Your task to perform on an android device: open app "Messages" Image 0: 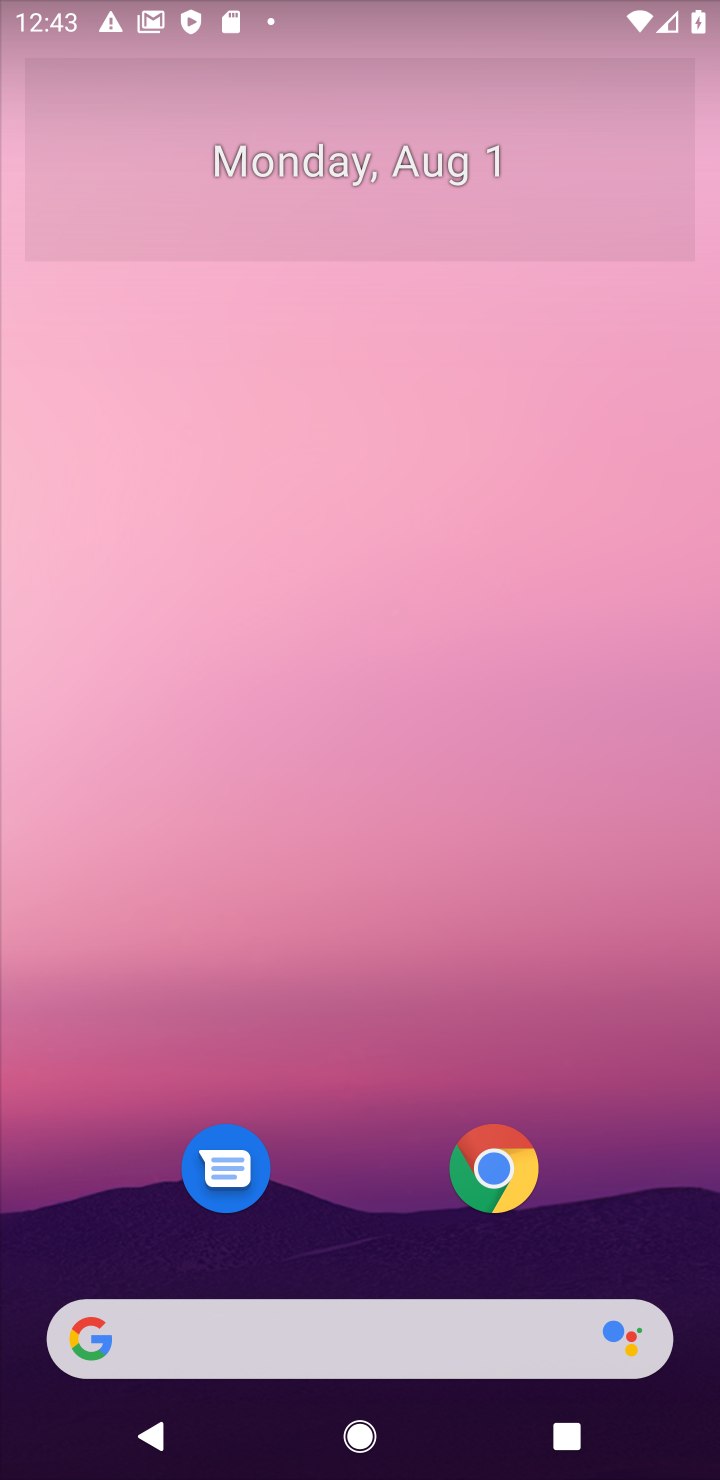
Step 0: drag from (391, 1186) to (490, 52)
Your task to perform on an android device: open app "Messages" Image 1: 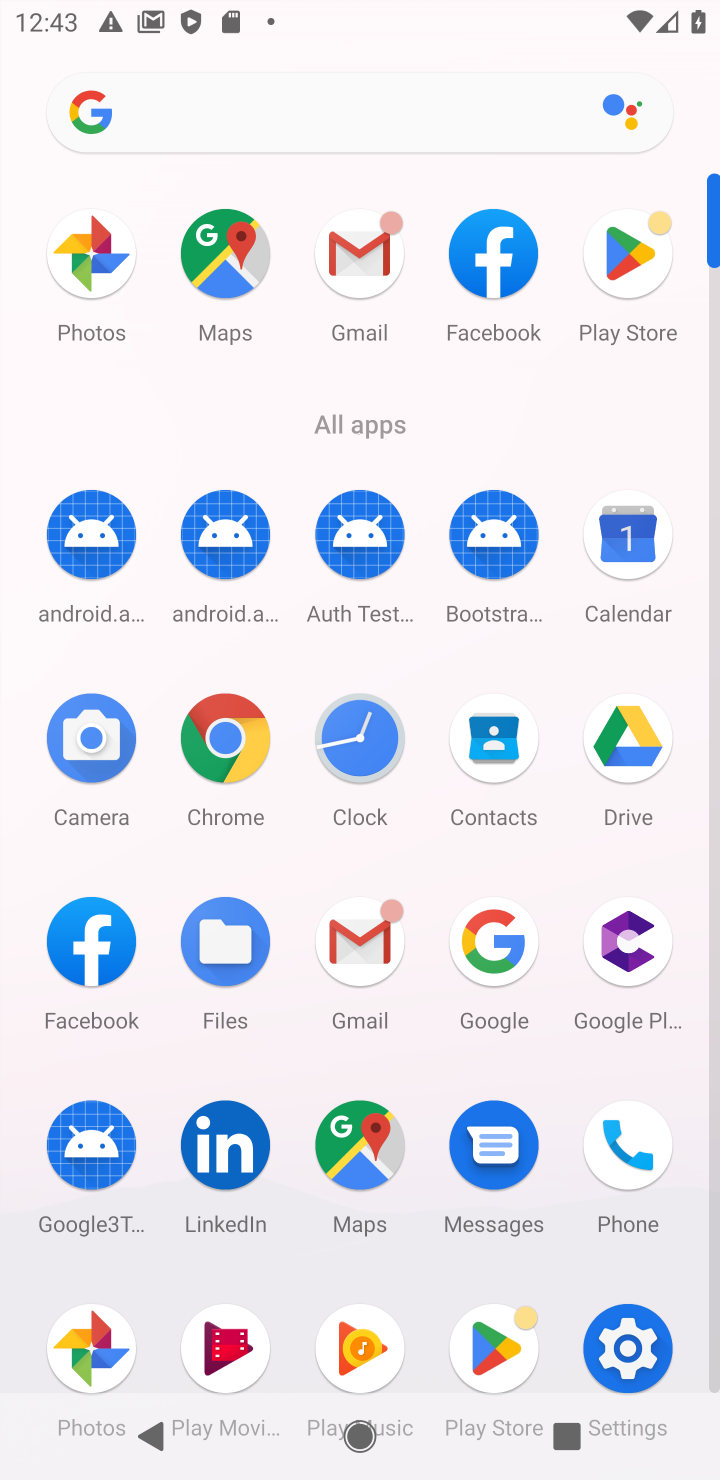
Step 1: click (621, 258)
Your task to perform on an android device: open app "Messages" Image 2: 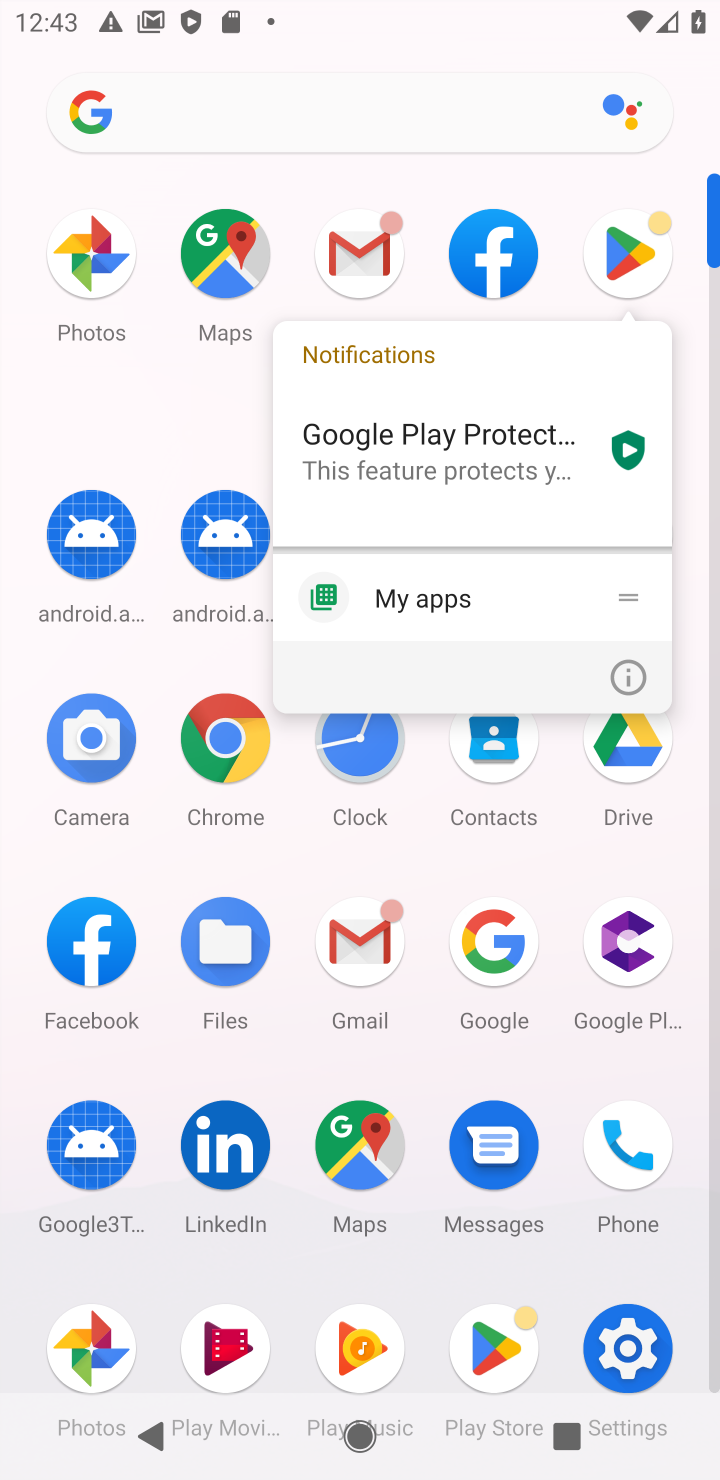
Step 2: click (619, 267)
Your task to perform on an android device: open app "Messages" Image 3: 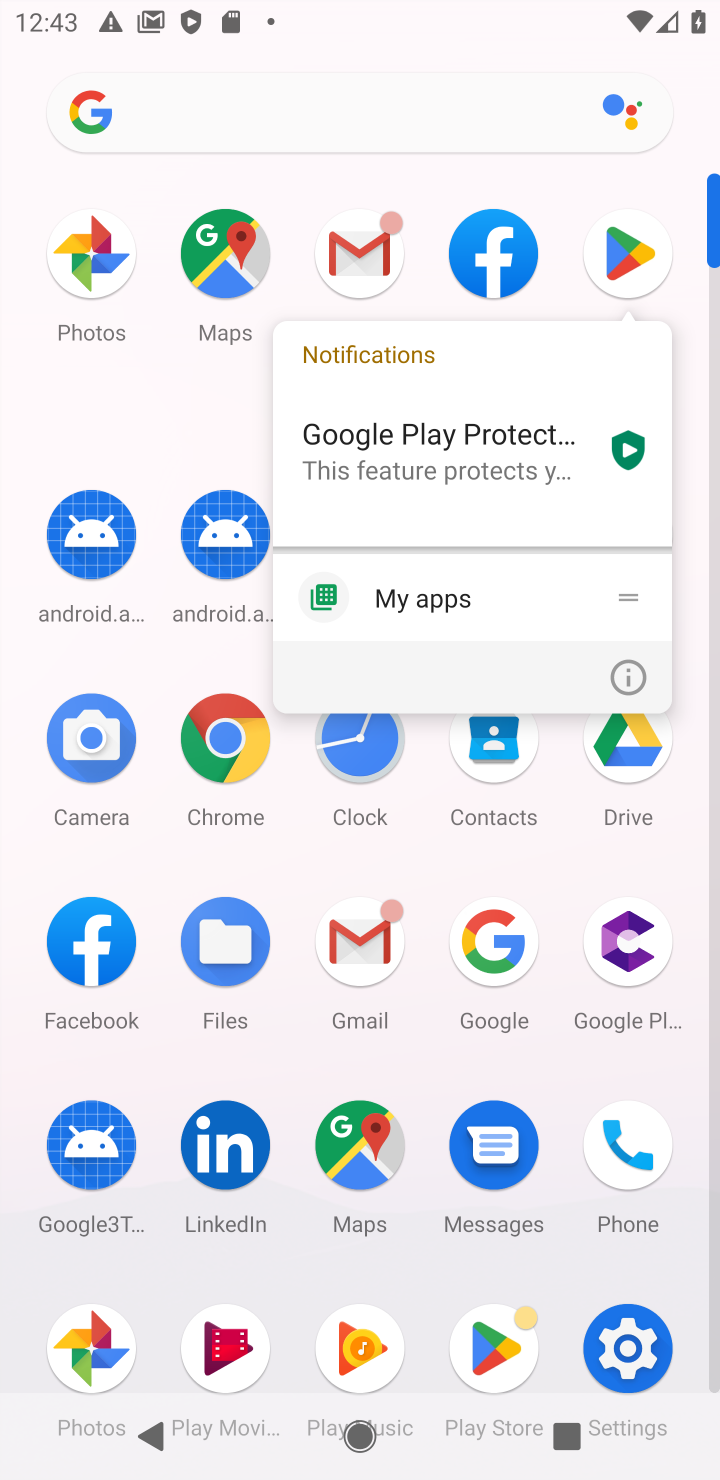
Step 3: click (612, 261)
Your task to perform on an android device: open app "Messages" Image 4: 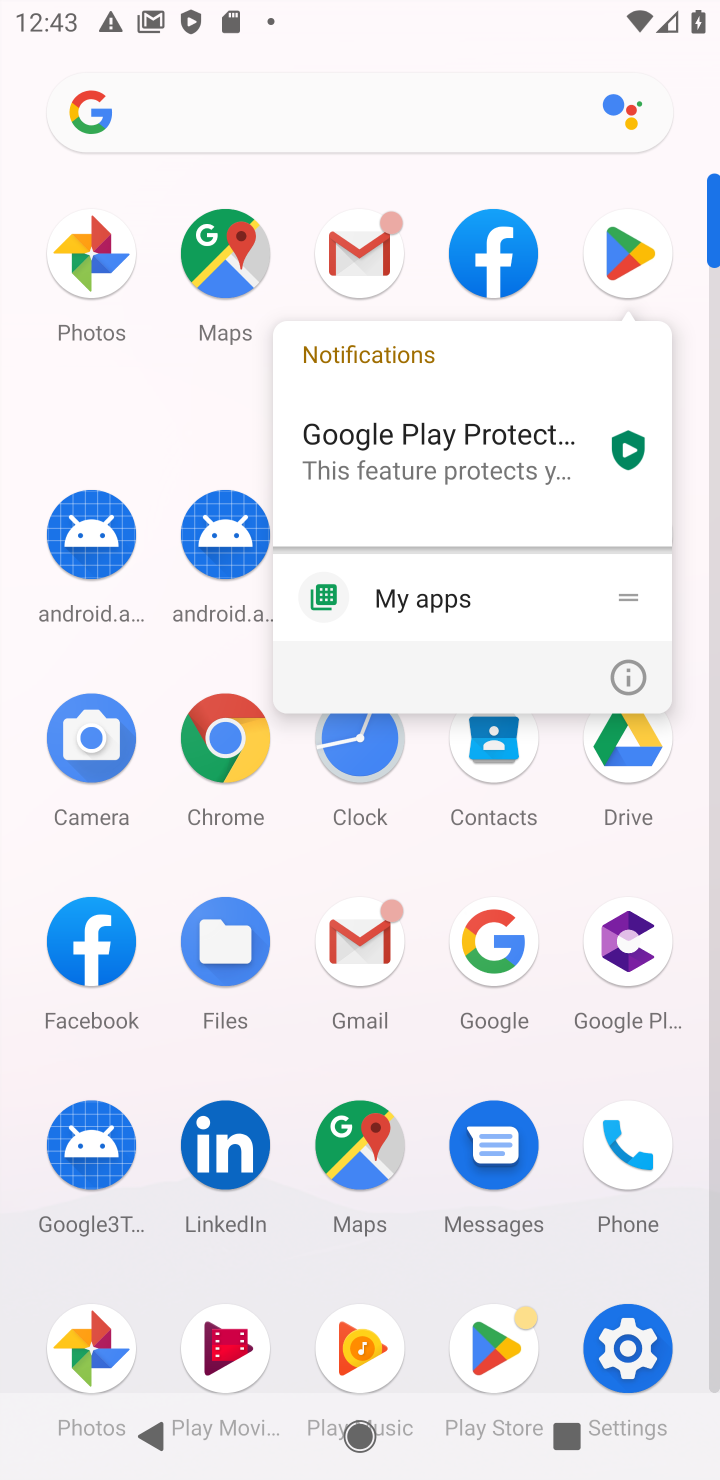
Step 4: click (639, 244)
Your task to perform on an android device: open app "Messages" Image 5: 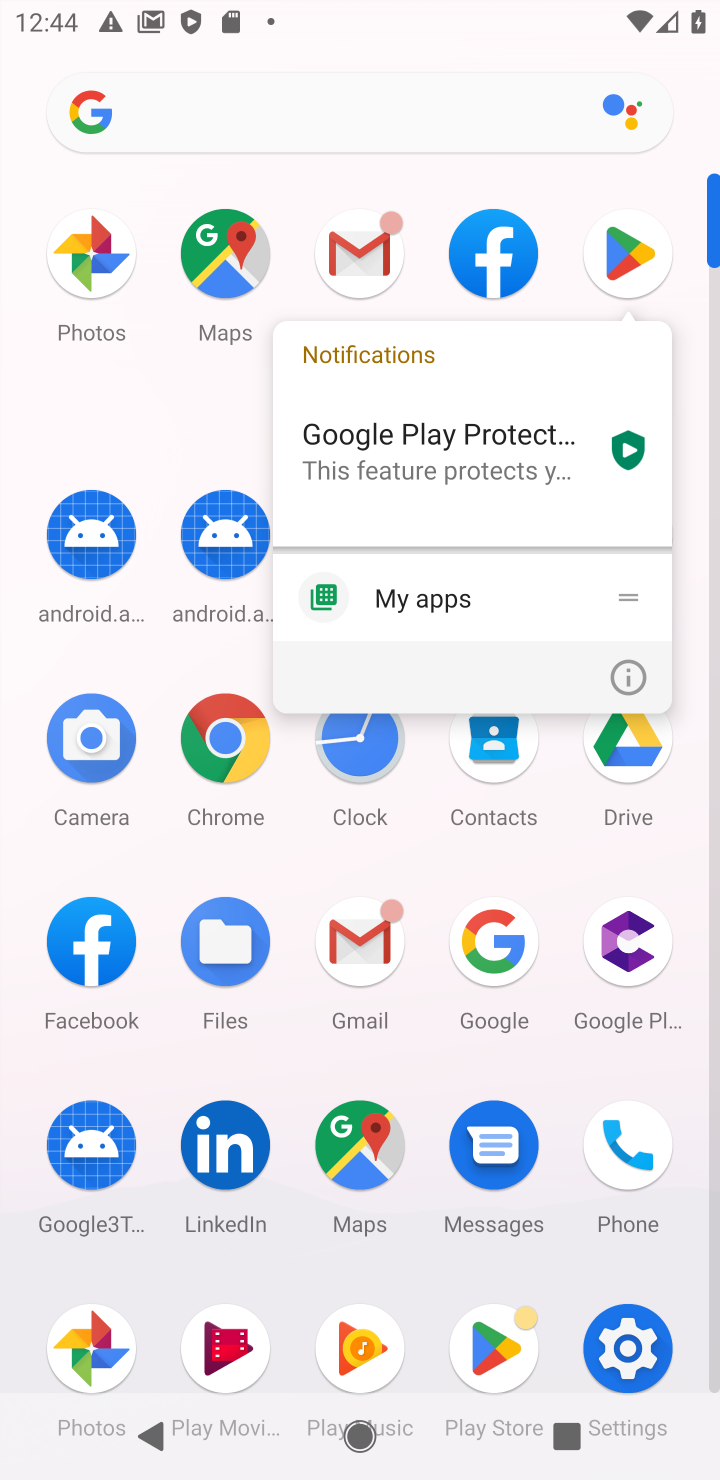
Step 5: click (646, 248)
Your task to perform on an android device: open app "Messages" Image 6: 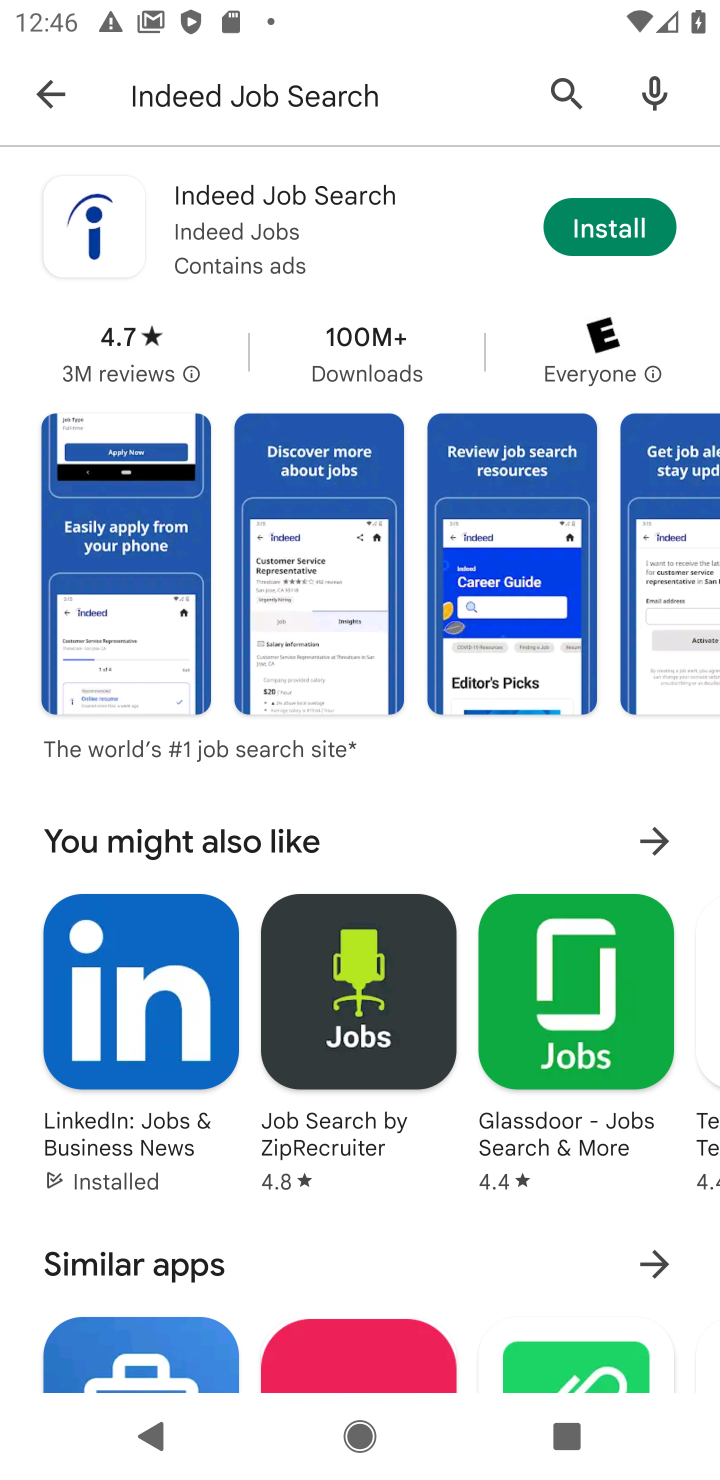
Step 6: click (471, 90)
Your task to perform on an android device: open app "Messages" Image 7: 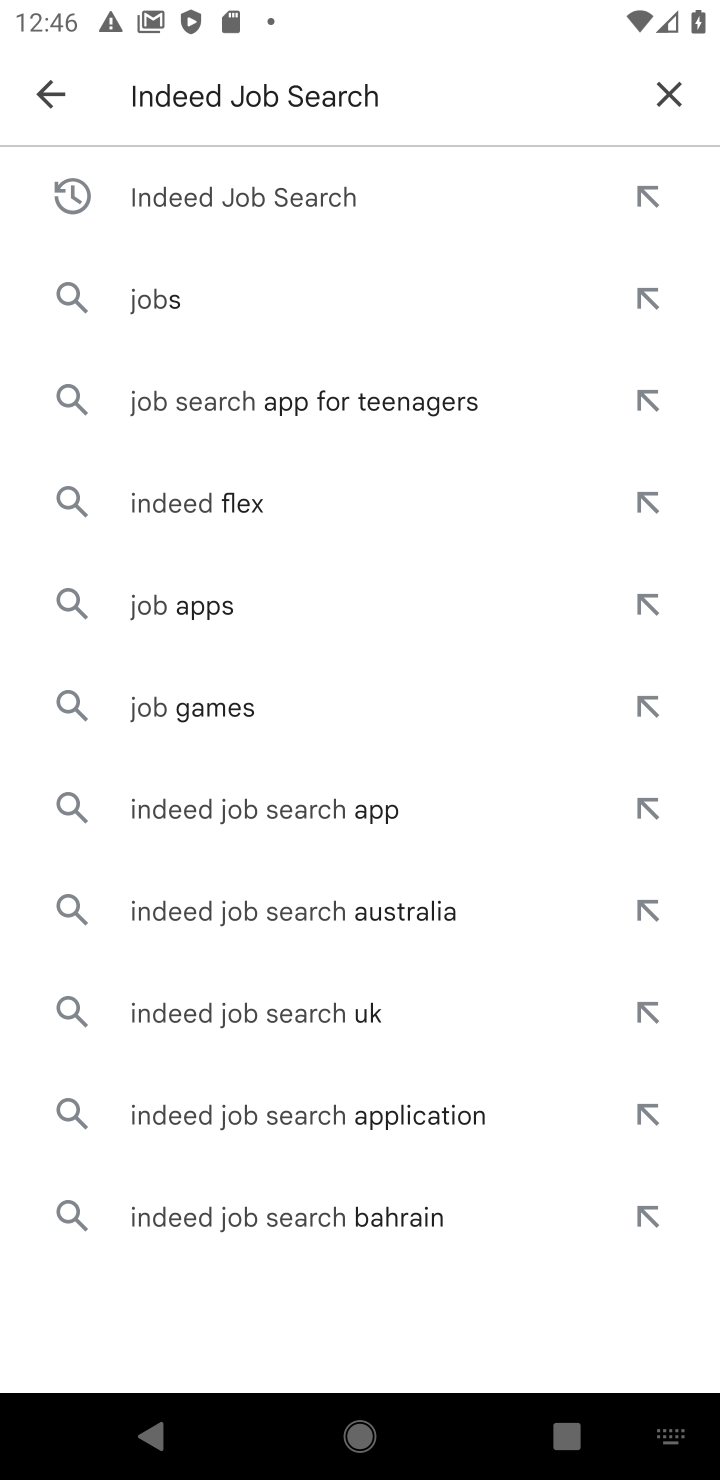
Step 7: click (677, 89)
Your task to perform on an android device: open app "Messages" Image 8: 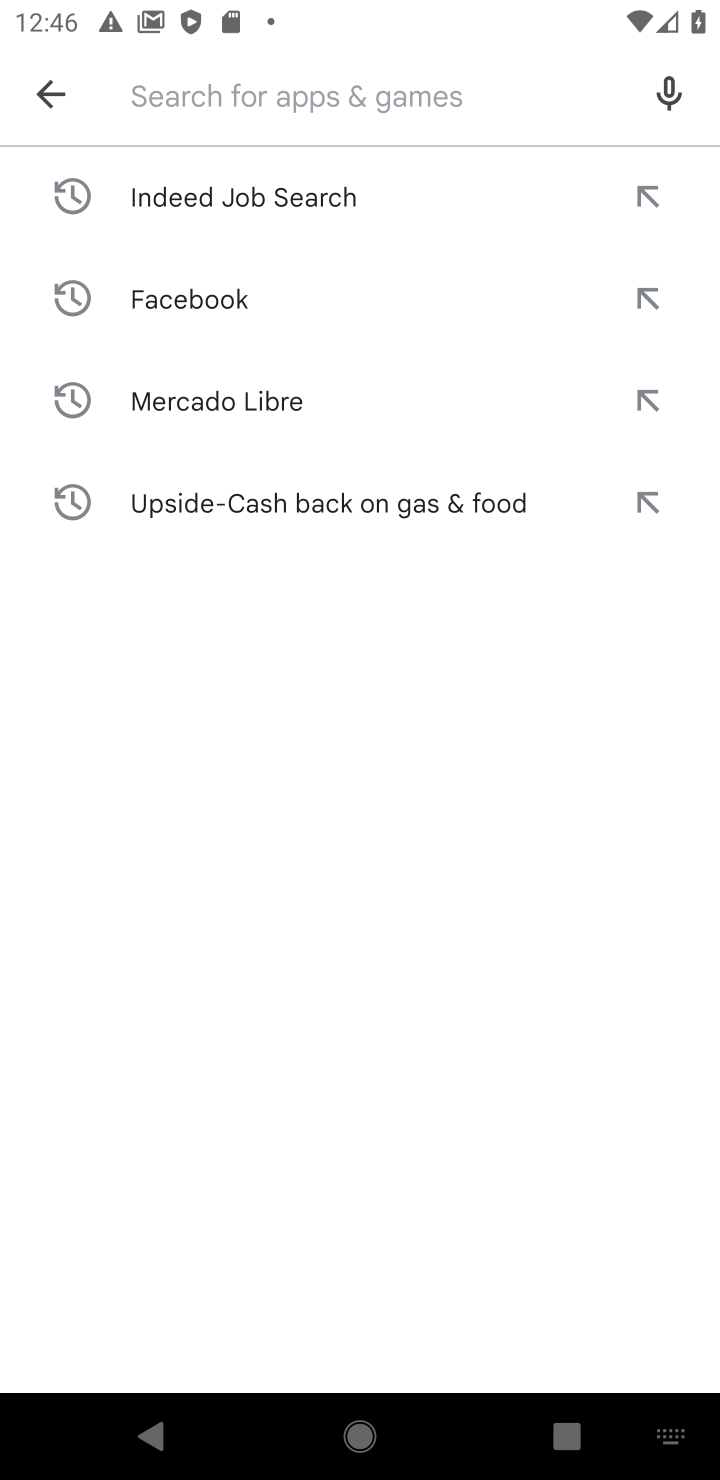
Step 8: type "Messages"
Your task to perform on an android device: open app "Messages" Image 9: 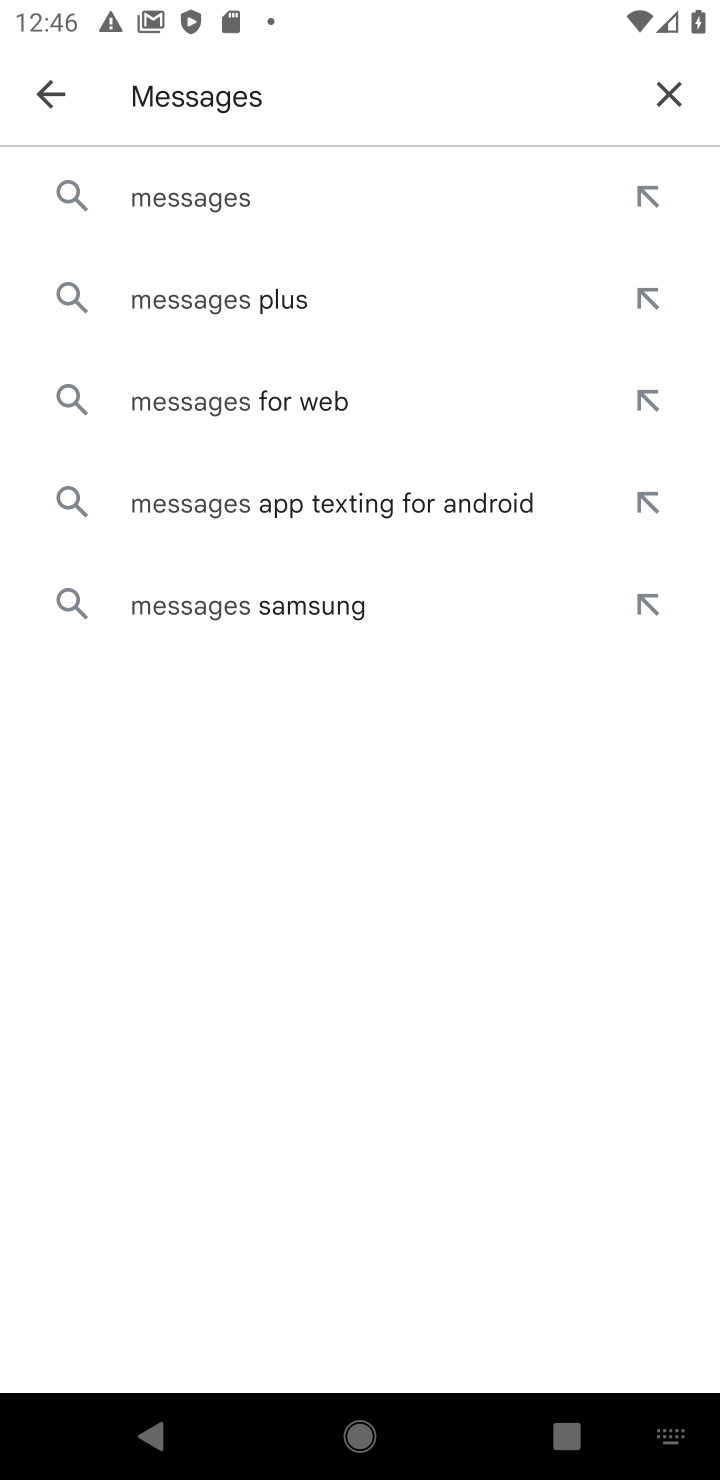
Step 9: press enter
Your task to perform on an android device: open app "Messages" Image 10: 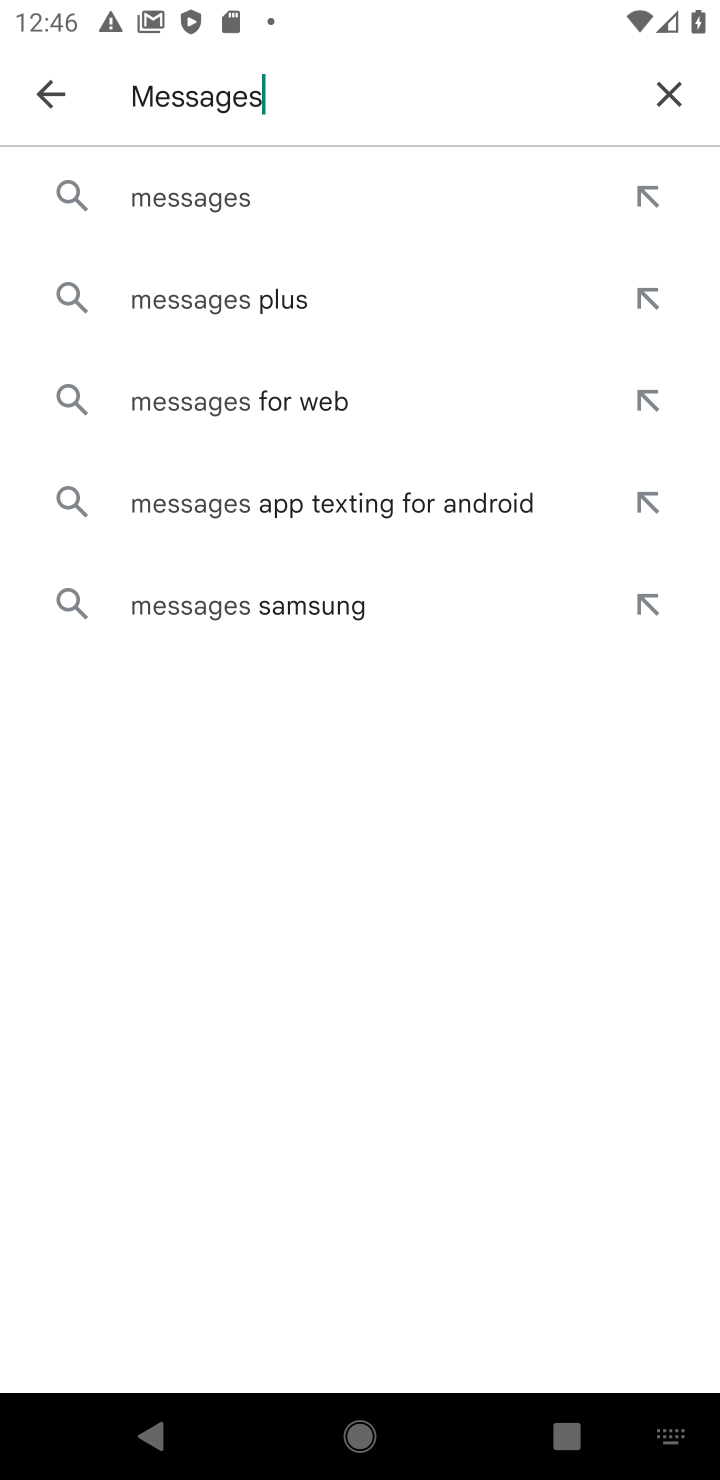
Step 10: press enter
Your task to perform on an android device: open app "Messages" Image 11: 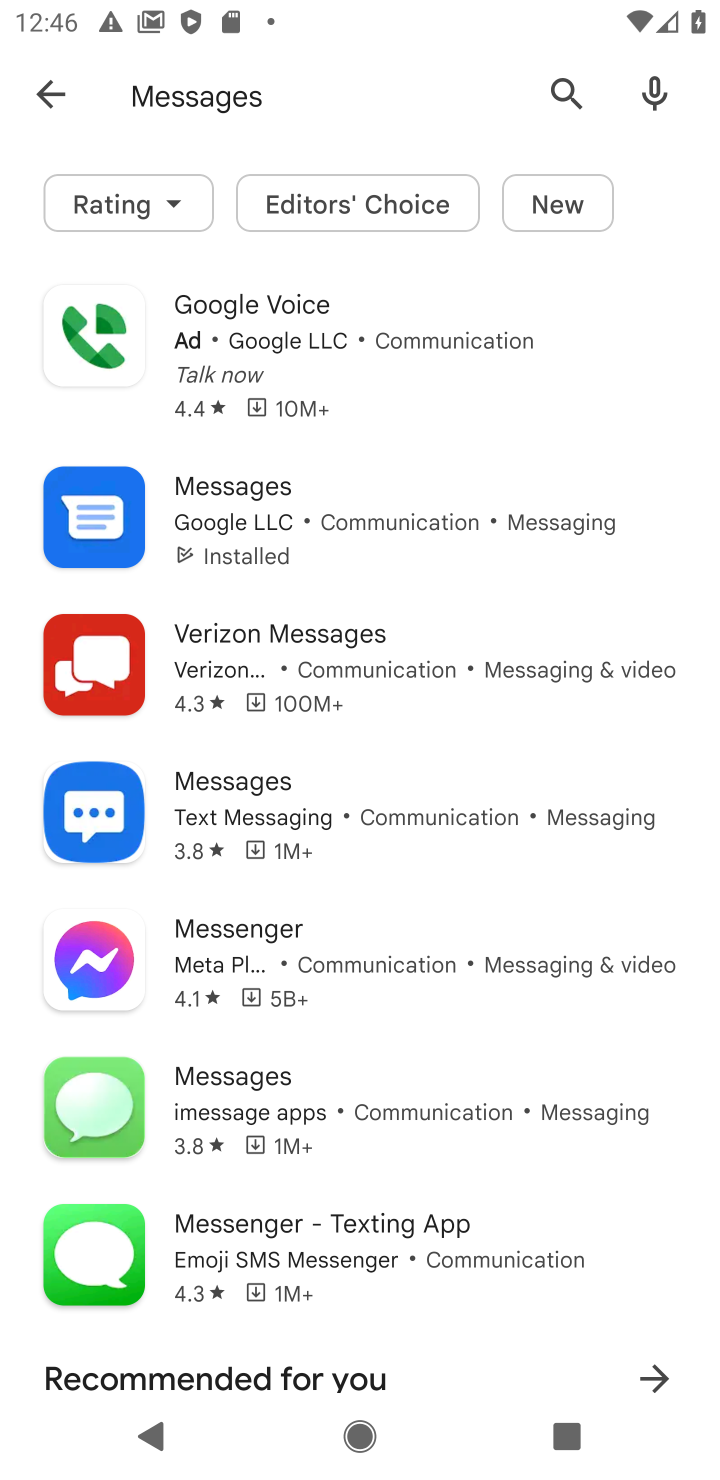
Step 11: click (340, 489)
Your task to perform on an android device: open app "Messages" Image 12: 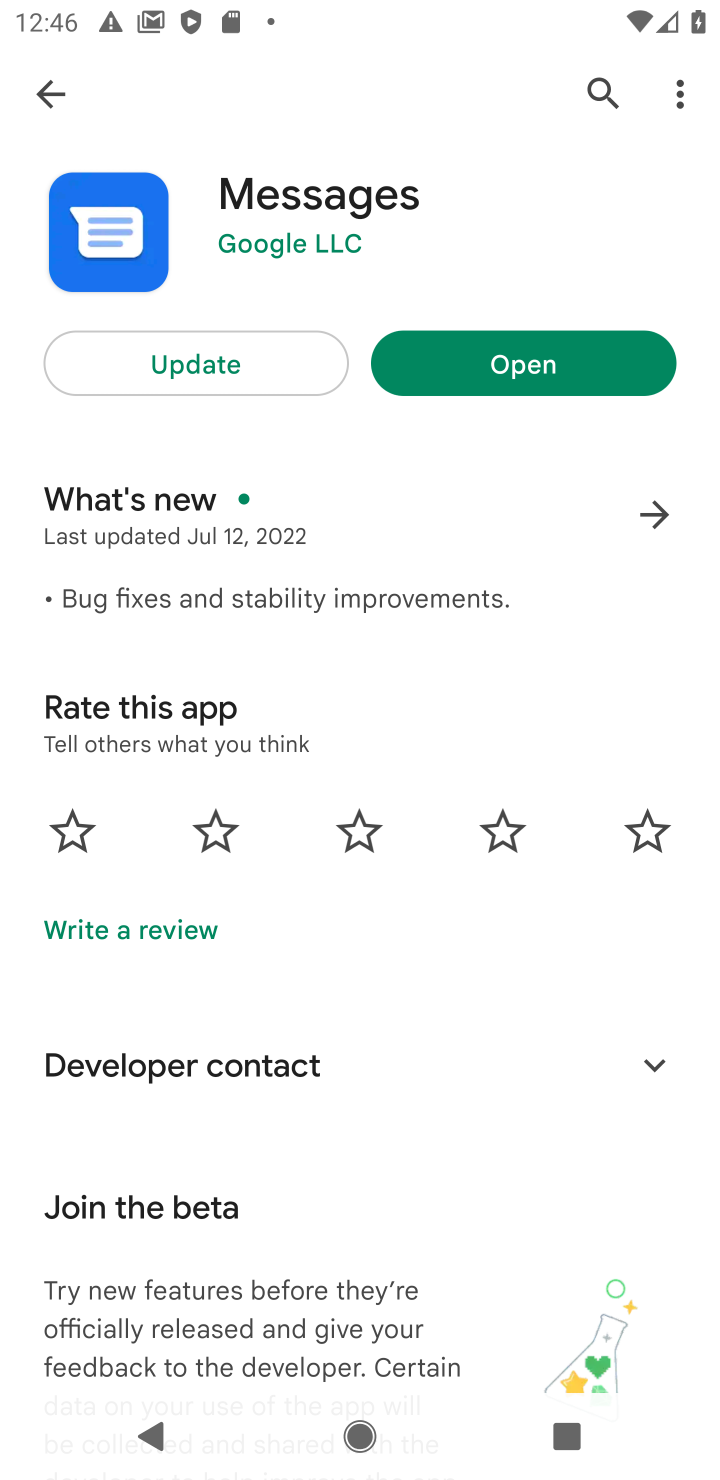
Step 12: click (536, 366)
Your task to perform on an android device: open app "Messages" Image 13: 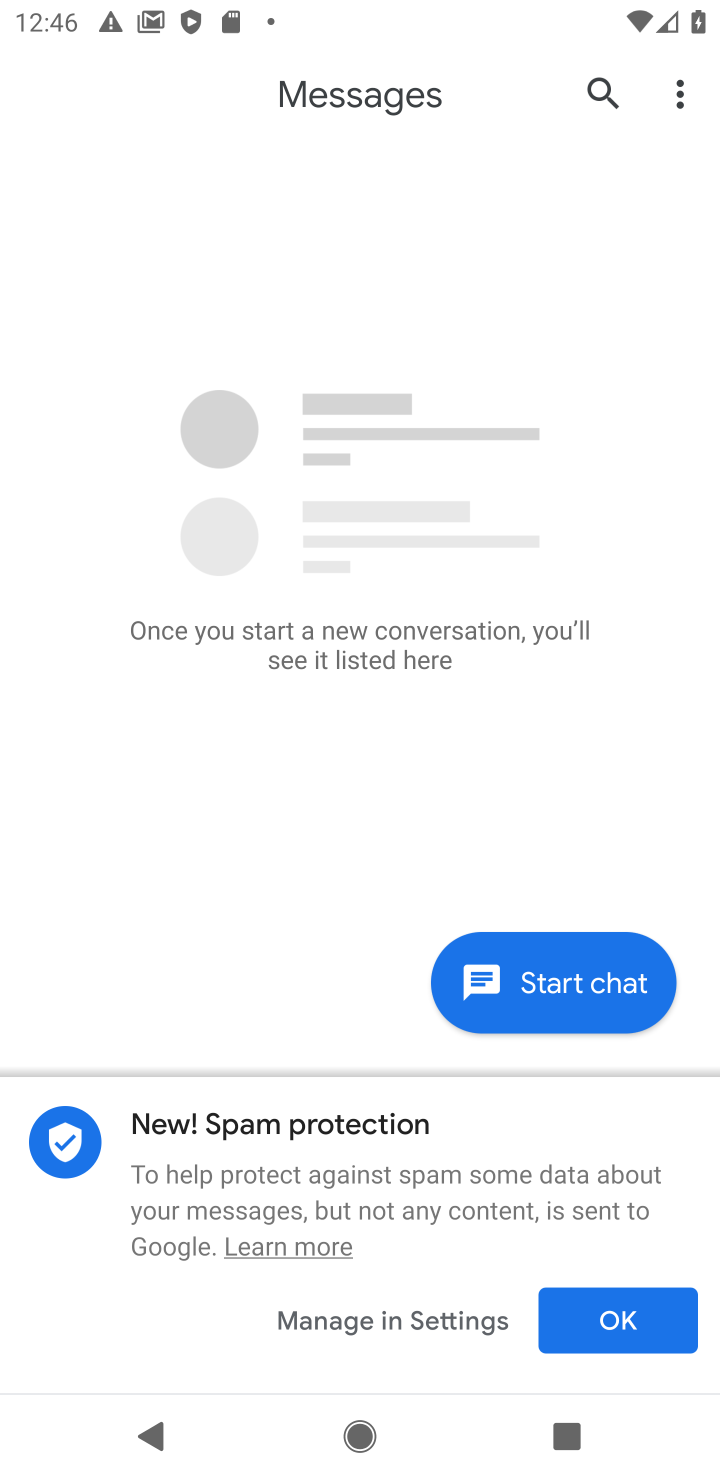
Step 13: task complete